Your task to perform on an android device: Open Google Chrome Image 0: 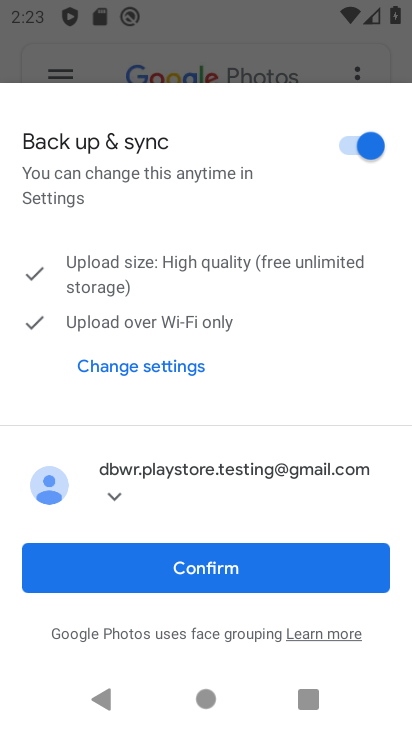
Step 0: press home button
Your task to perform on an android device: Open Google Chrome Image 1: 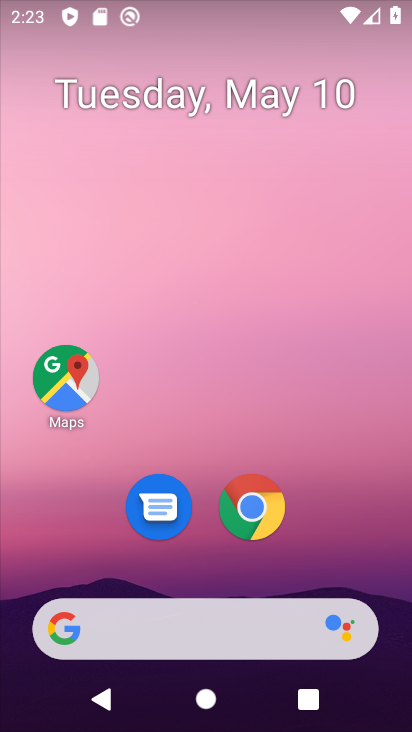
Step 1: click (256, 507)
Your task to perform on an android device: Open Google Chrome Image 2: 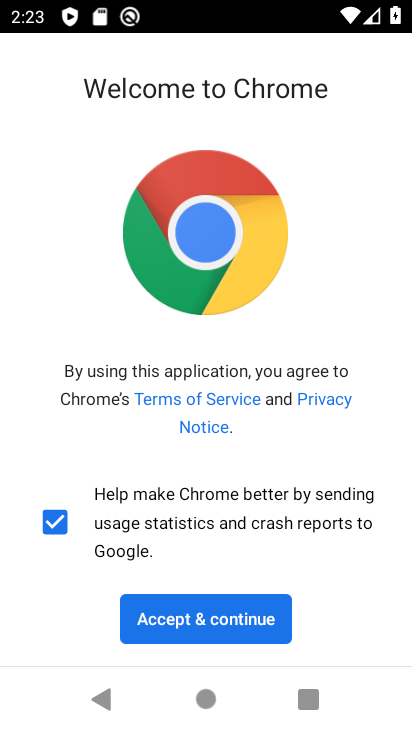
Step 2: click (209, 620)
Your task to perform on an android device: Open Google Chrome Image 3: 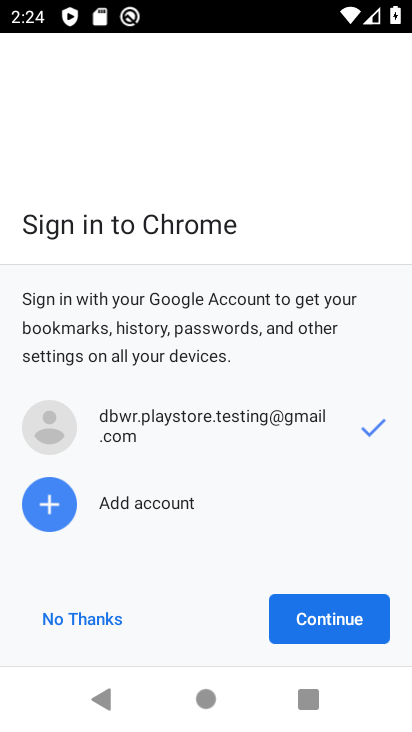
Step 3: click (317, 622)
Your task to perform on an android device: Open Google Chrome Image 4: 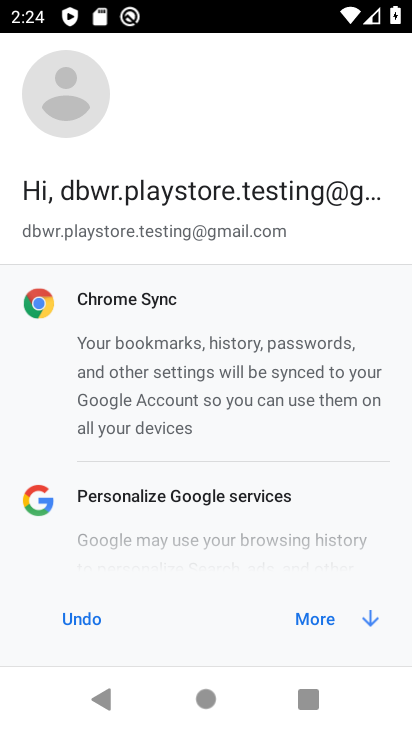
Step 4: click (319, 614)
Your task to perform on an android device: Open Google Chrome Image 5: 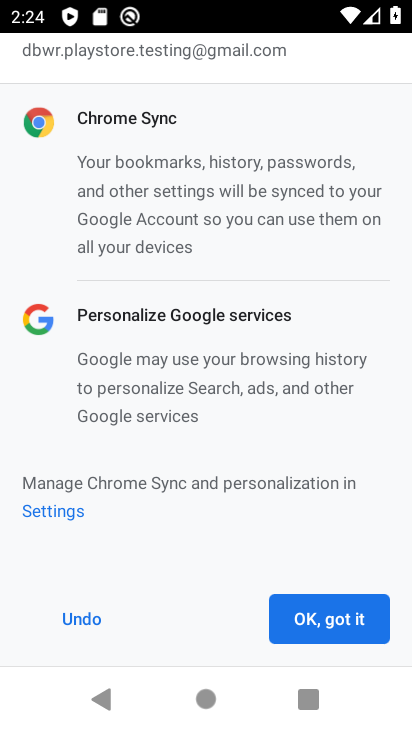
Step 5: click (319, 614)
Your task to perform on an android device: Open Google Chrome Image 6: 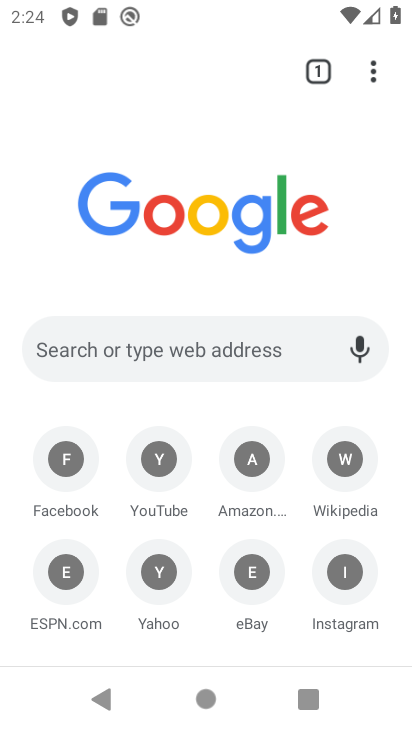
Step 6: task complete